Your task to perform on an android device: uninstall "Google Photos" Image 0: 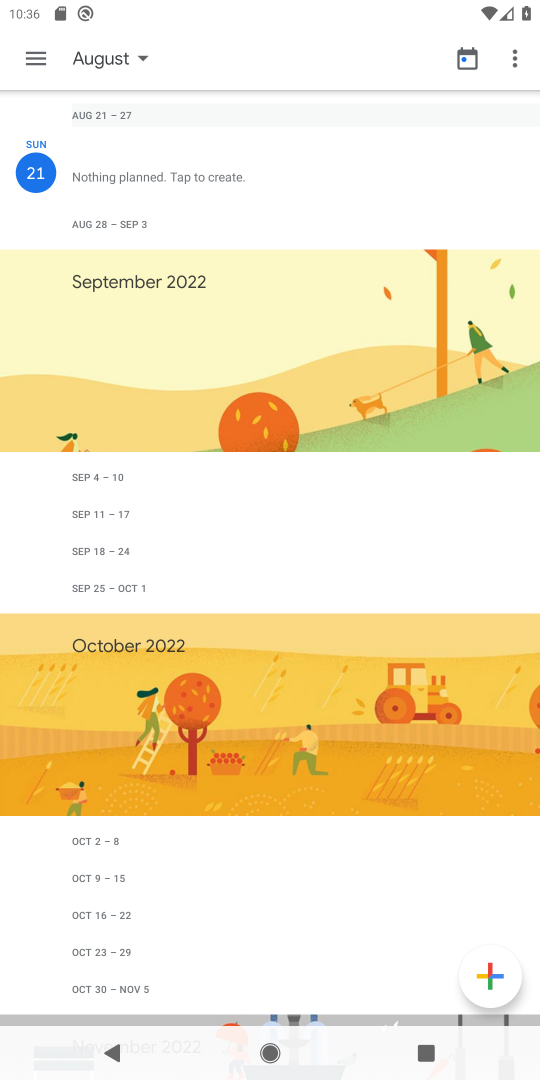
Step 0: press home button
Your task to perform on an android device: uninstall "Google Photos" Image 1: 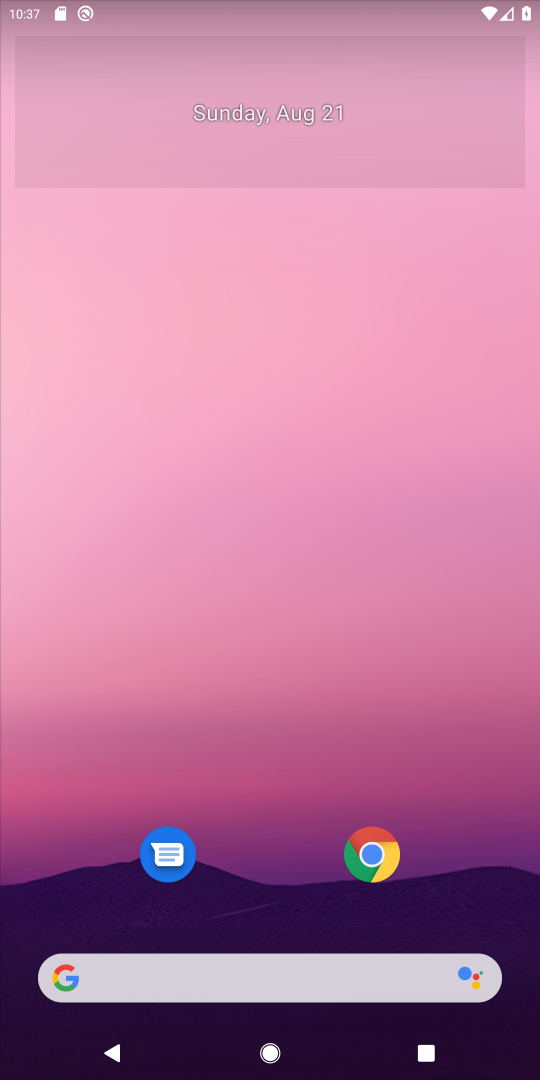
Step 1: task complete